Your task to perform on an android device: change keyboard looks Image 0: 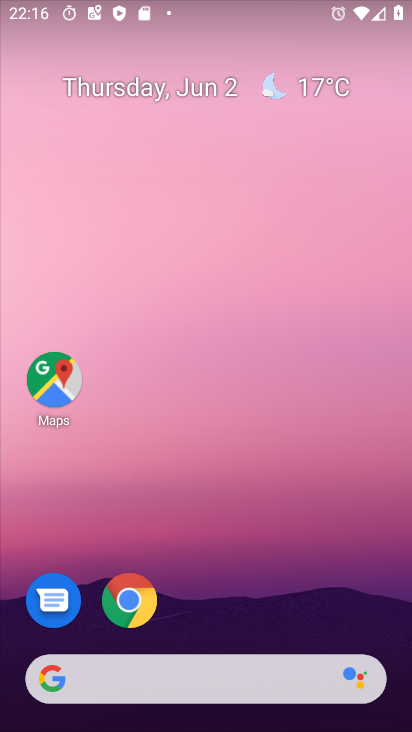
Step 0: drag from (361, 609) to (351, 158)
Your task to perform on an android device: change keyboard looks Image 1: 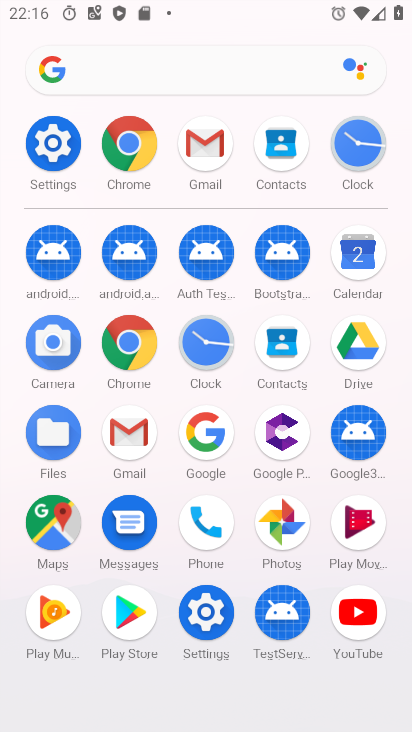
Step 1: click (218, 611)
Your task to perform on an android device: change keyboard looks Image 2: 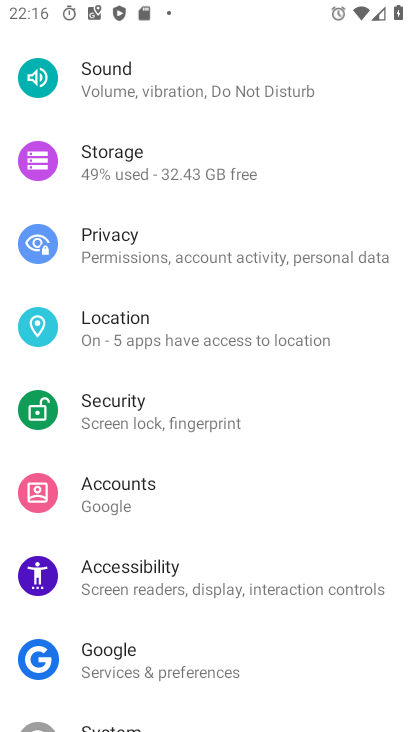
Step 2: drag from (360, 314) to (362, 434)
Your task to perform on an android device: change keyboard looks Image 3: 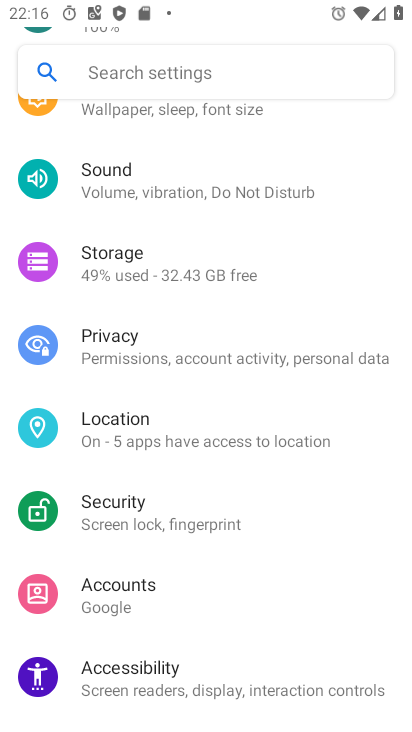
Step 3: drag from (364, 257) to (359, 381)
Your task to perform on an android device: change keyboard looks Image 4: 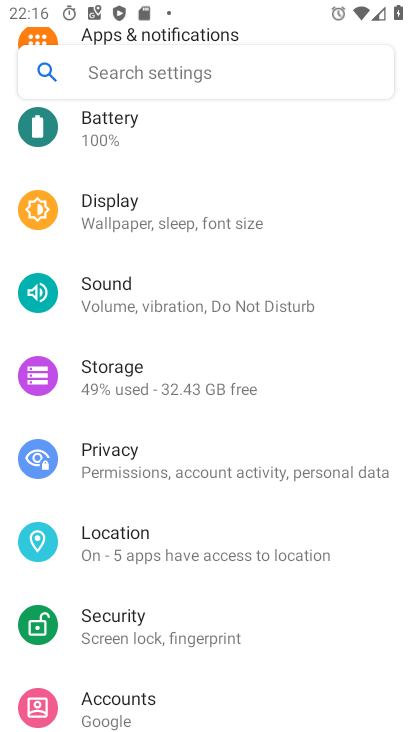
Step 4: drag from (371, 224) to (364, 396)
Your task to perform on an android device: change keyboard looks Image 5: 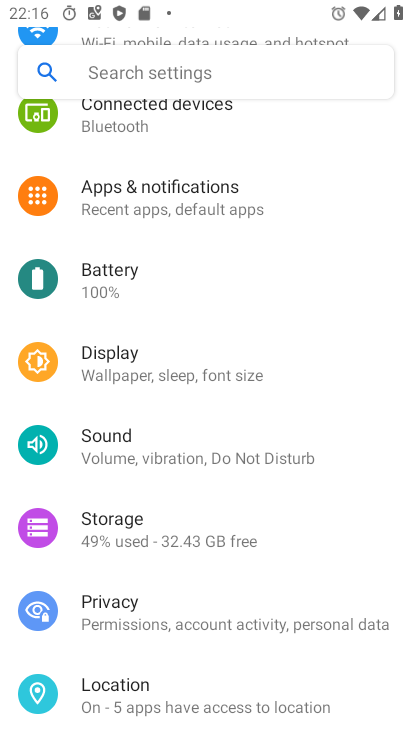
Step 5: drag from (362, 193) to (354, 380)
Your task to perform on an android device: change keyboard looks Image 6: 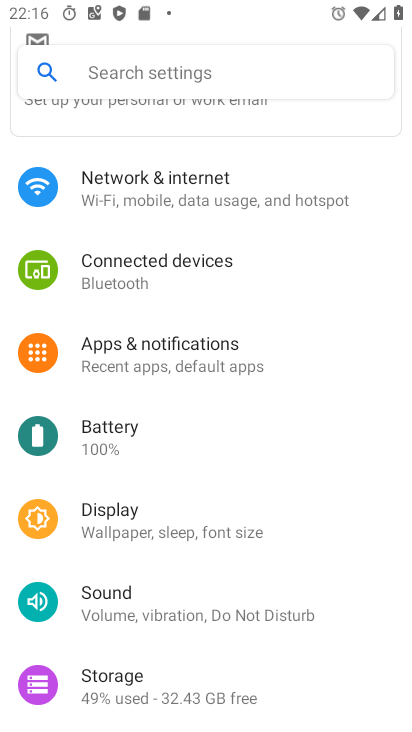
Step 6: drag from (370, 178) to (359, 387)
Your task to perform on an android device: change keyboard looks Image 7: 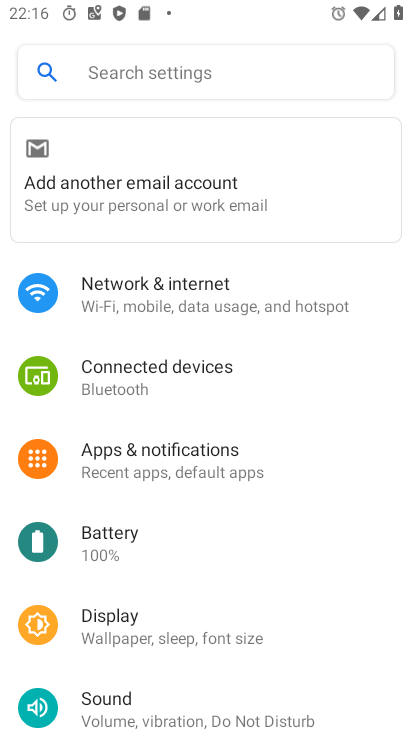
Step 7: drag from (347, 422) to (356, 308)
Your task to perform on an android device: change keyboard looks Image 8: 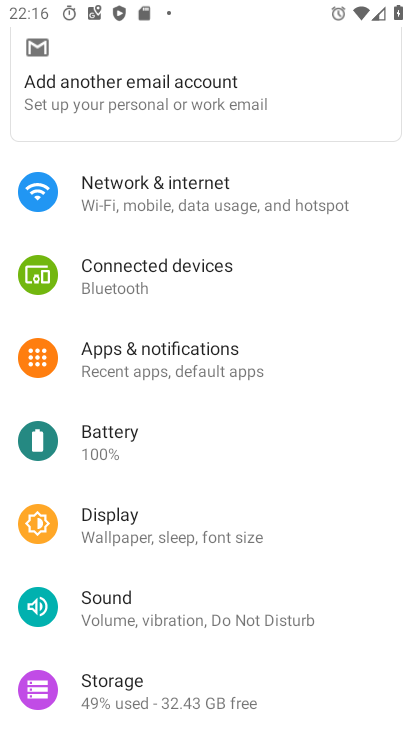
Step 8: drag from (350, 398) to (350, 297)
Your task to perform on an android device: change keyboard looks Image 9: 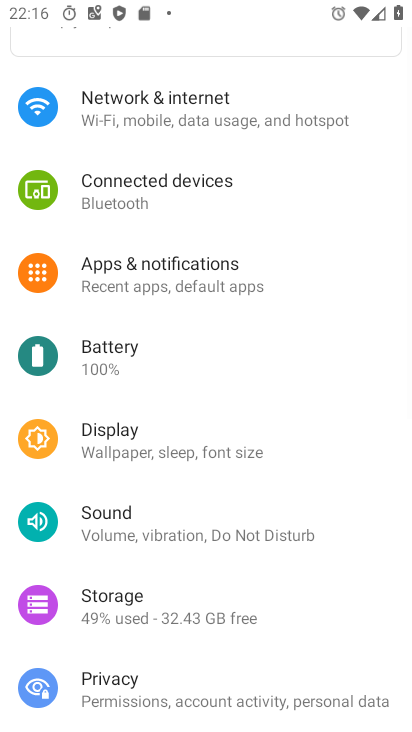
Step 9: drag from (330, 400) to (333, 263)
Your task to perform on an android device: change keyboard looks Image 10: 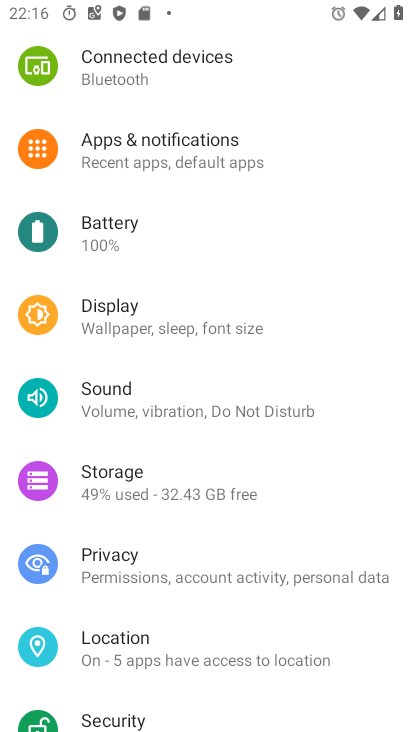
Step 10: drag from (340, 469) to (347, 340)
Your task to perform on an android device: change keyboard looks Image 11: 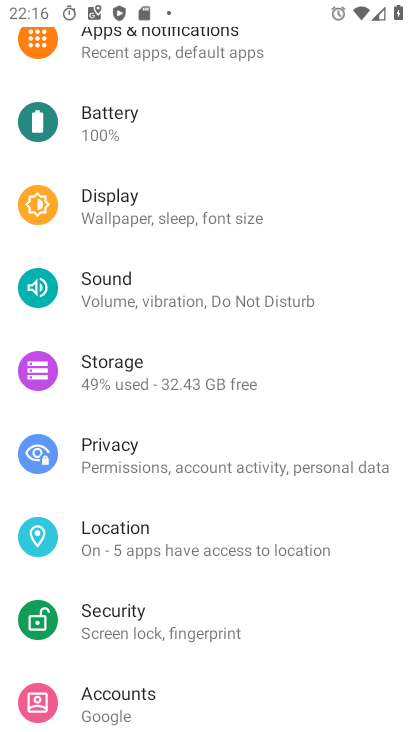
Step 11: drag from (344, 486) to (348, 346)
Your task to perform on an android device: change keyboard looks Image 12: 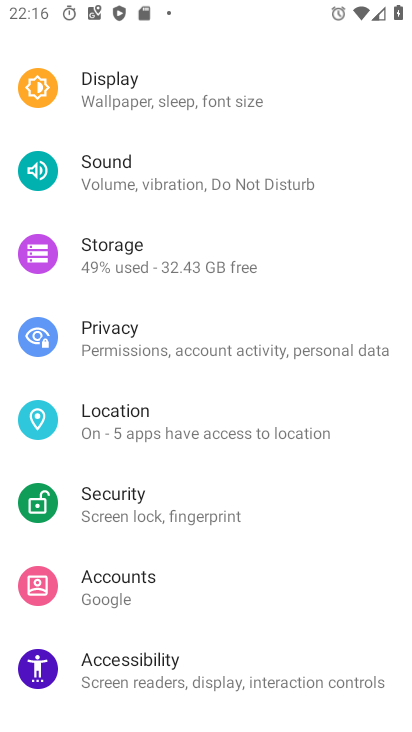
Step 12: drag from (340, 466) to (340, 353)
Your task to perform on an android device: change keyboard looks Image 13: 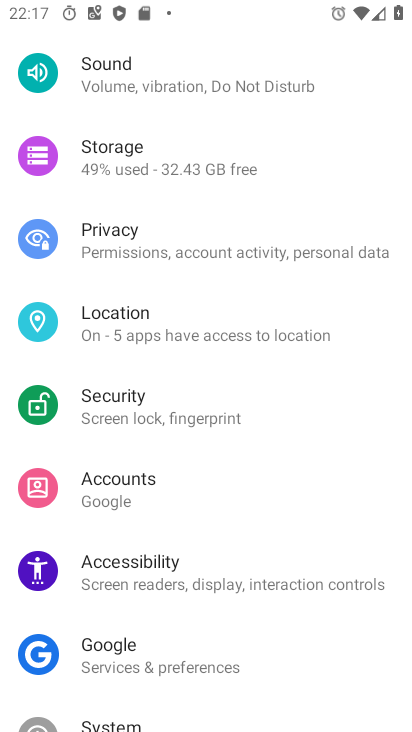
Step 13: drag from (332, 477) to (342, 336)
Your task to perform on an android device: change keyboard looks Image 14: 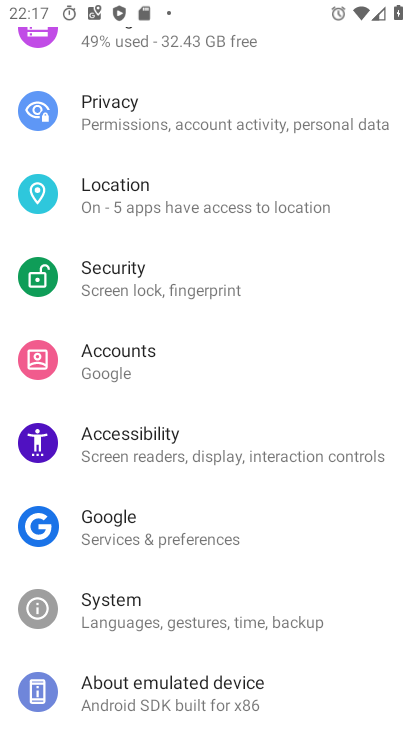
Step 14: drag from (338, 525) to (336, 412)
Your task to perform on an android device: change keyboard looks Image 15: 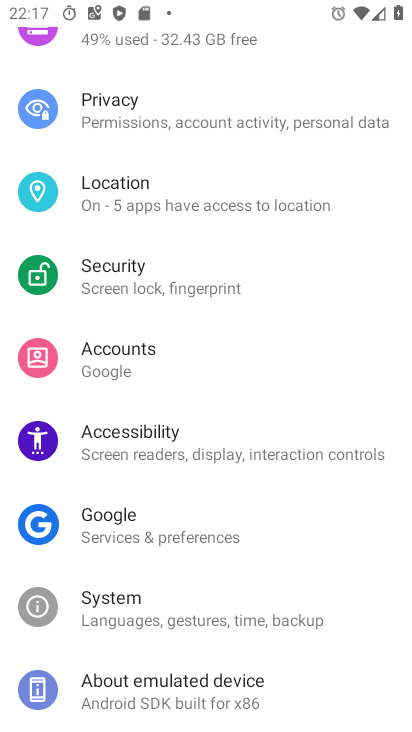
Step 15: click (241, 624)
Your task to perform on an android device: change keyboard looks Image 16: 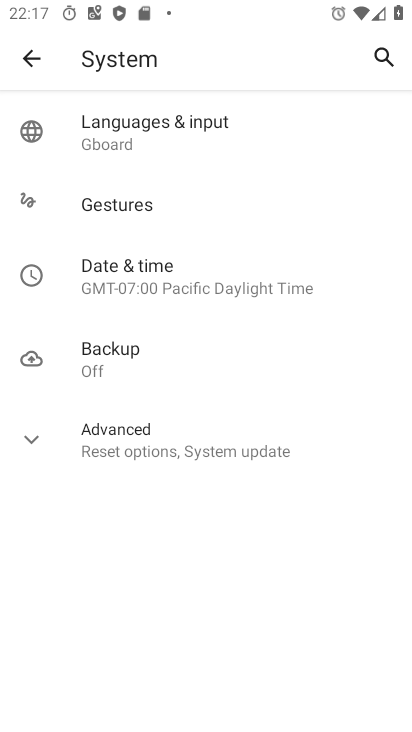
Step 16: click (140, 138)
Your task to perform on an android device: change keyboard looks Image 17: 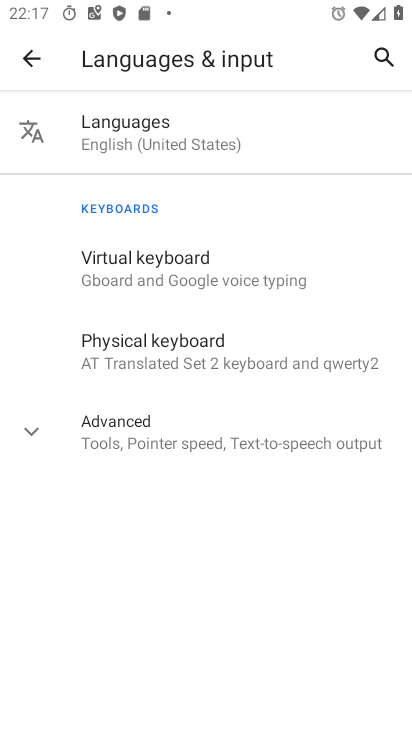
Step 17: click (231, 274)
Your task to perform on an android device: change keyboard looks Image 18: 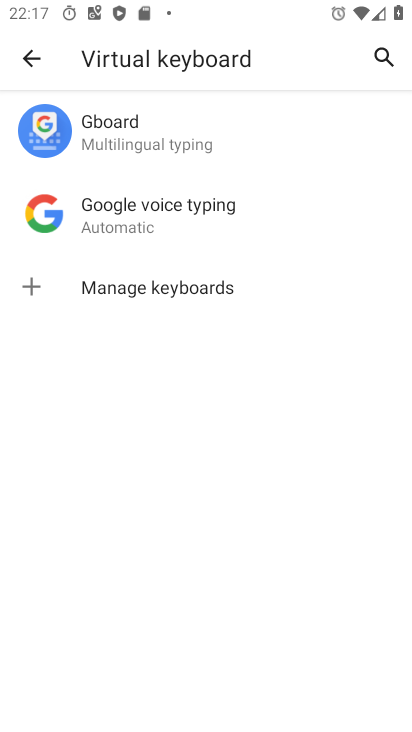
Step 18: click (182, 147)
Your task to perform on an android device: change keyboard looks Image 19: 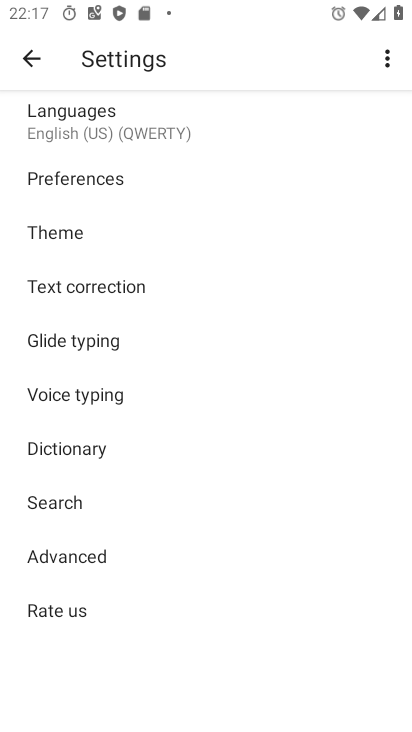
Step 19: click (82, 242)
Your task to perform on an android device: change keyboard looks Image 20: 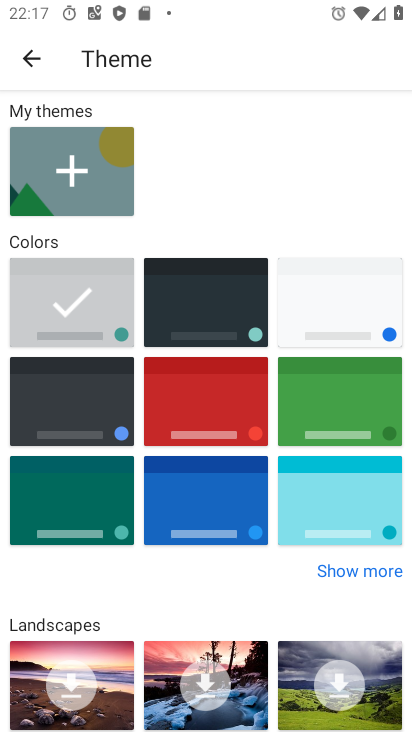
Step 20: click (202, 409)
Your task to perform on an android device: change keyboard looks Image 21: 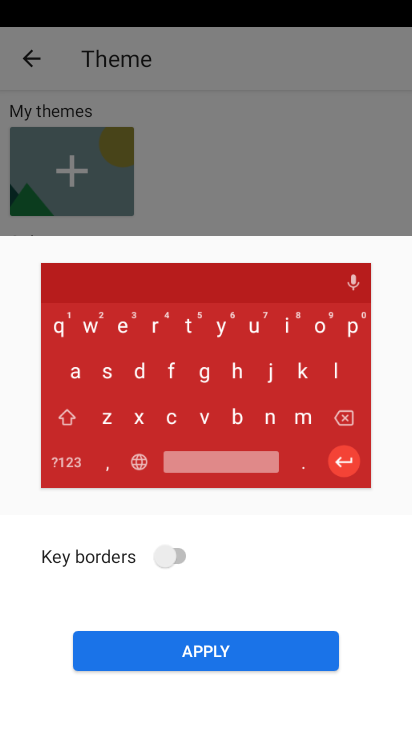
Step 21: click (225, 646)
Your task to perform on an android device: change keyboard looks Image 22: 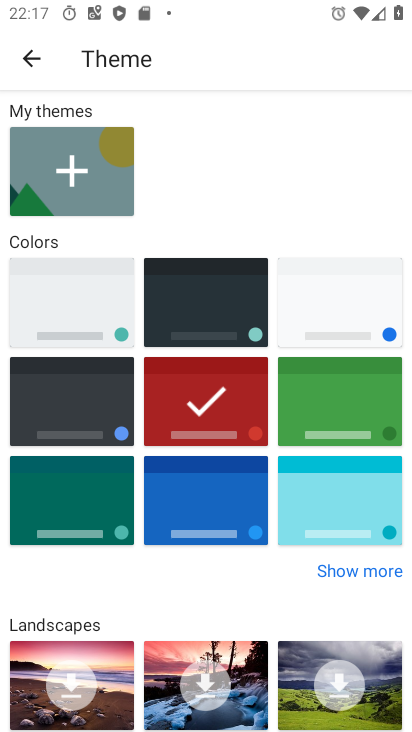
Step 22: task complete